Your task to perform on an android device: find snoozed emails in the gmail app Image 0: 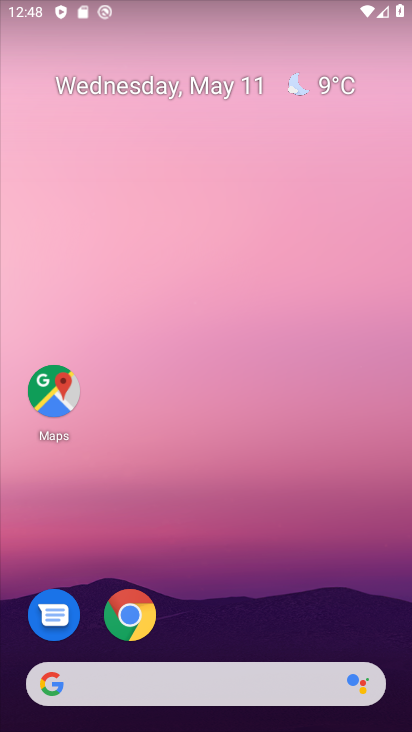
Step 0: click (62, 383)
Your task to perform on an android device: find snoozed emails in the gmail app Image 1: 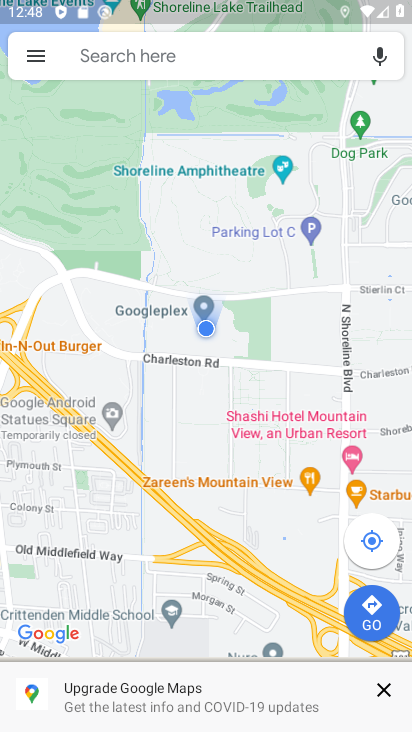
Step 1: press home button
Your task to perform on an android device: find snoozed emails in the gmail app Image 2: 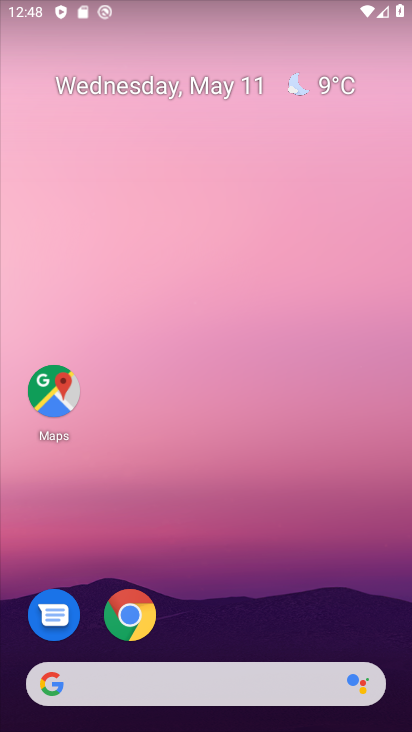
Step 2: drag from (240, 606) to (229, 208)
Your task to perform on an android device: find snoozed emails in the gmail app Image 3: 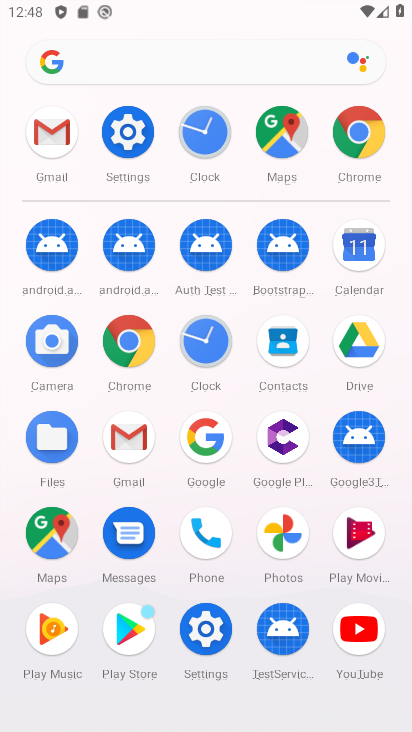
Step 3: click (54, 126)
Your task to perform on an android device: find snoozed emails in the gmail app Image 4: 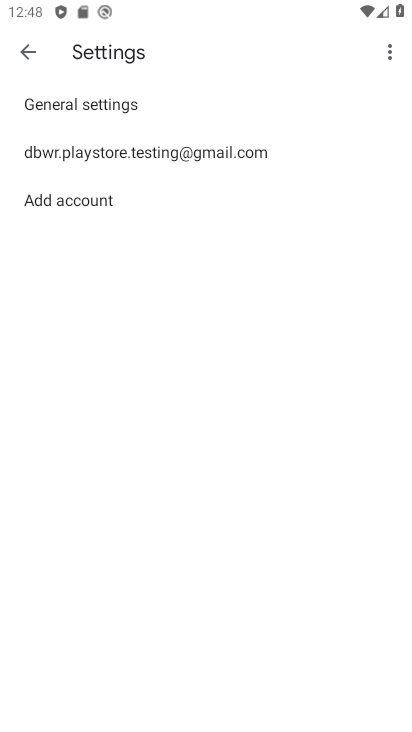
Step 4: drag from (48, 92) to (26, 24)
Your task to perform on an android device: find snoozed emails in the gmail app Image 5: 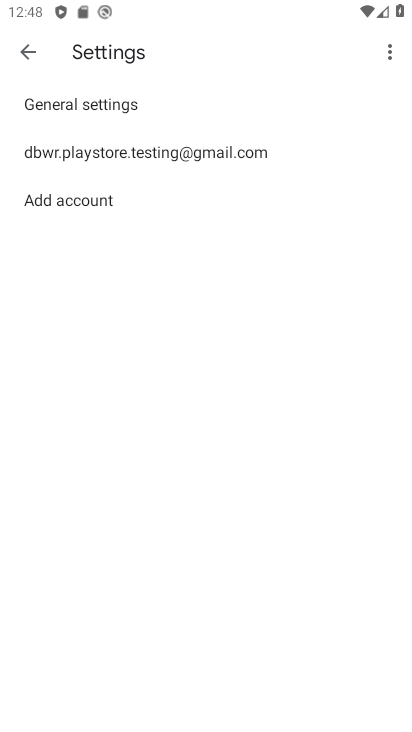
Step 5: click (30, 42)
Your task to perform on an android device: find snoozed emails in the gmail app Image 6: 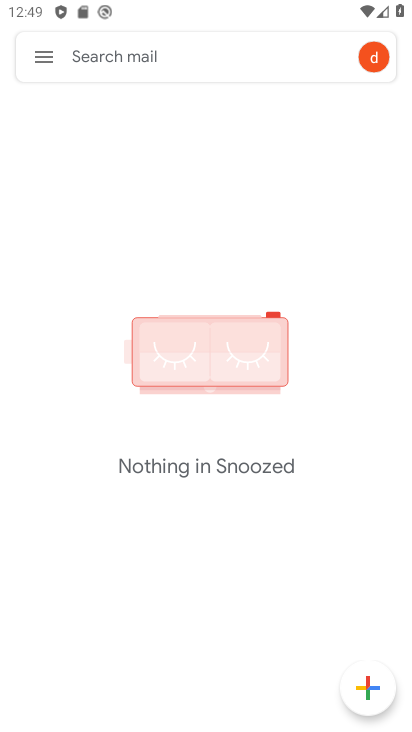
Step 6: click (31, 59)
Your task to perform on an android device: find snoozed emails in the gmail app Image 7: 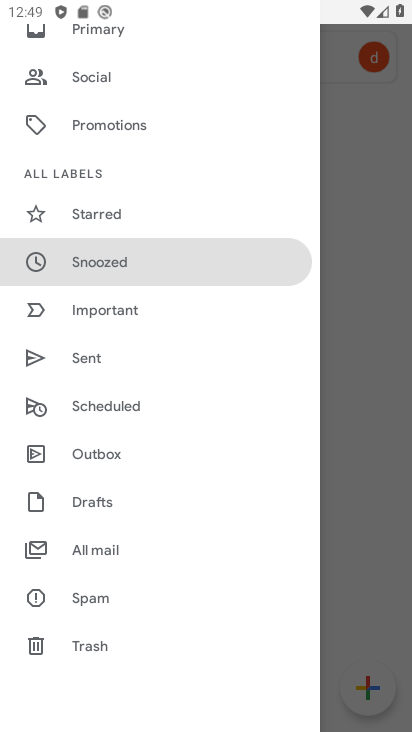
Step 7: task complete